Your task to perform on an android device: turn off javascript in the chrome app Image 0: 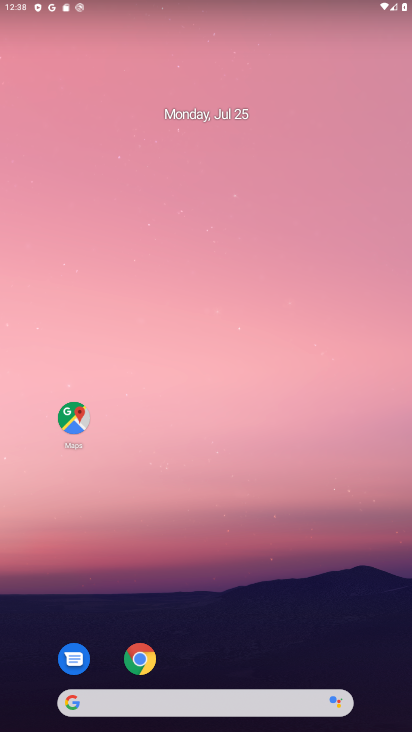
Step 0: click (408, 563)
Your task to perform on an android device: turn off javascript in the chrome app Image 1: 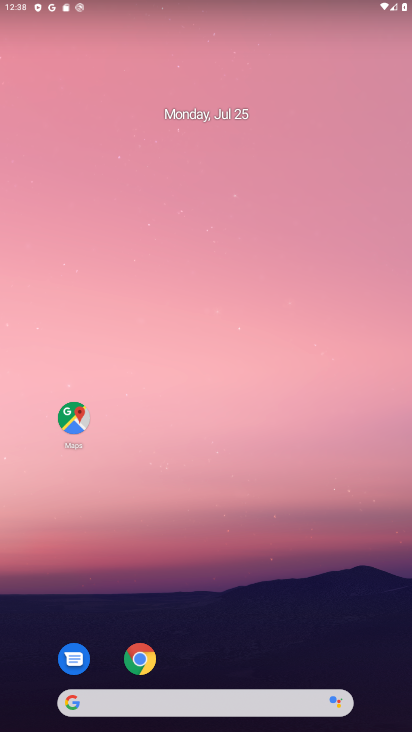
Step 1: drag from (336, 639) to (313, 167)
Your task to perform on an android device: turn off javascript in the chrome app Image 2: 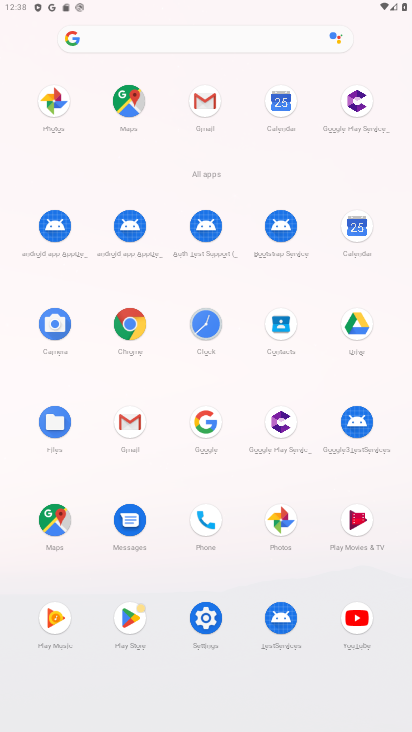
Step 2: click (124, 327)
Your task to perform on an android device: turn off javascript in the chrome app Image 3: 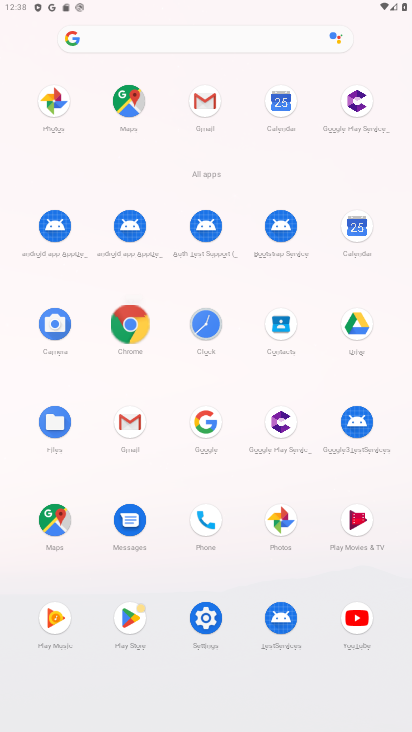
Step 3: click (124, 327)
Your task to perform on an android device: turn off javascript in the chrome app Image 4: 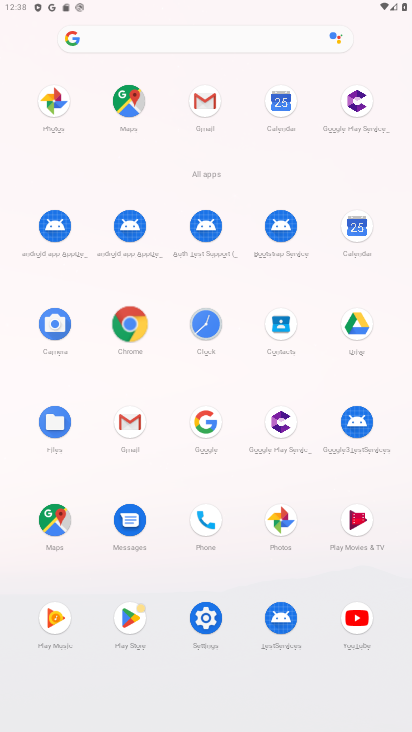
Step 4: click (127, 329)
Your task to perform on an android device: turn off javascript in the chrome app Image 5: 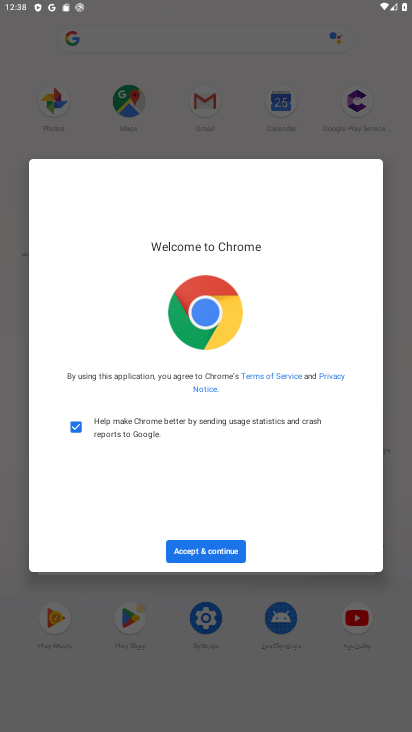
Step 5: click (208, 554)
Your task to perform on an android device: turn off javascript in the chrome app Image 6: 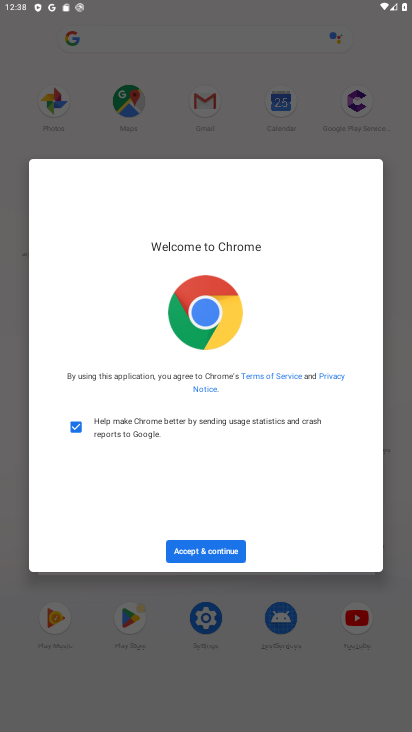
Step 6: click (208, 554)
Your task to perform on an android device: turn off javascript in the chrome app Image 7: 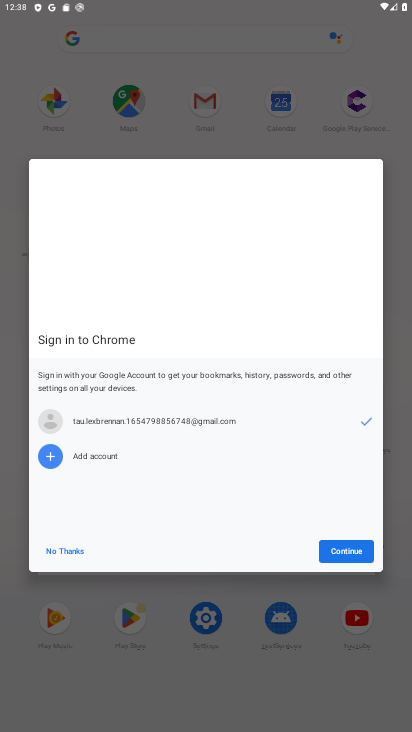
Step 7: click (208, 554)
Your task to perform on an android device: turn off javascript in the chrome app Image 8: 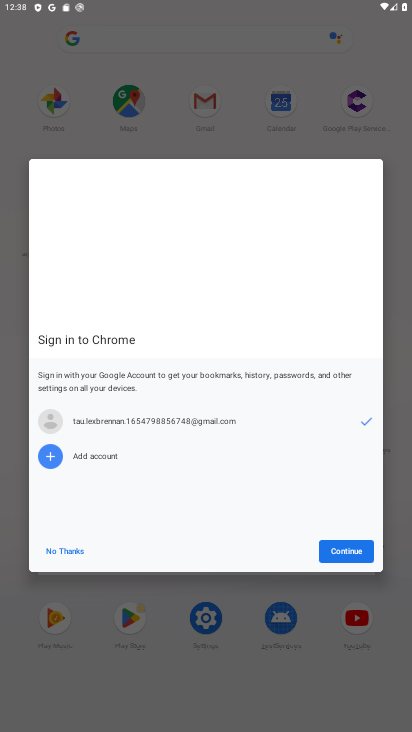
Step 8: click (50, 546)
Your task to perform on an android device: turn off javascript in the chrome app Image 9: 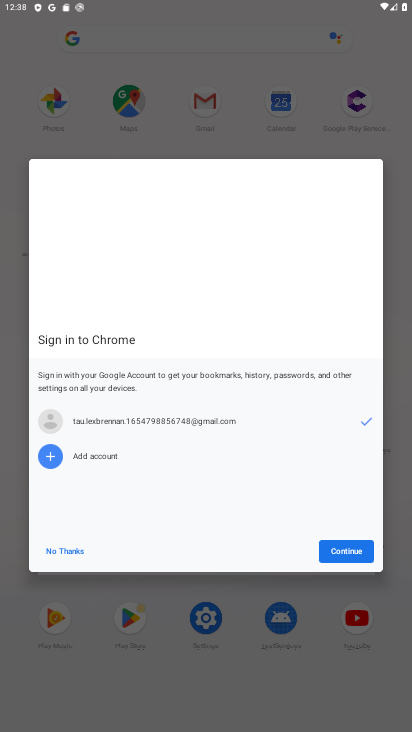
Step 9: click (48, 545)
Your task to perform on an android device: turn off javascript in the chrome app Image 10: 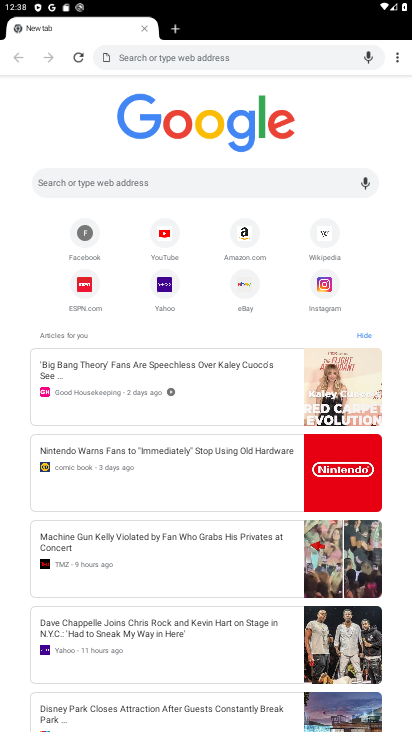
Step 10: click (395, 58)
Your task to perform on an android device: turn off javascript in the chrome app Image 11: 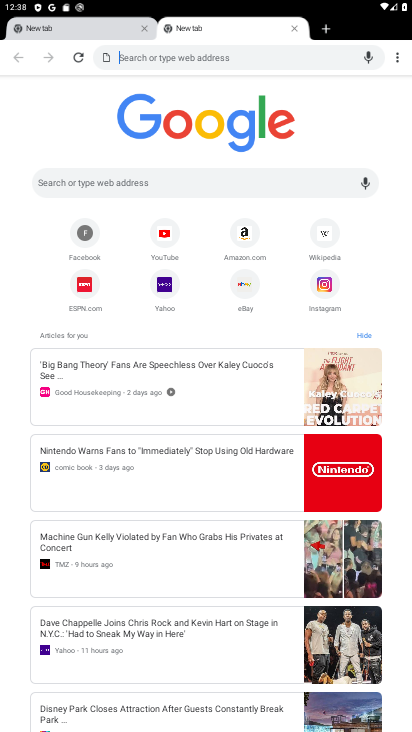
Step 11: drag from (394, 55) to (274, 270)
Your task to perform on an android device: turn off javascript in the chrome app Image 12: 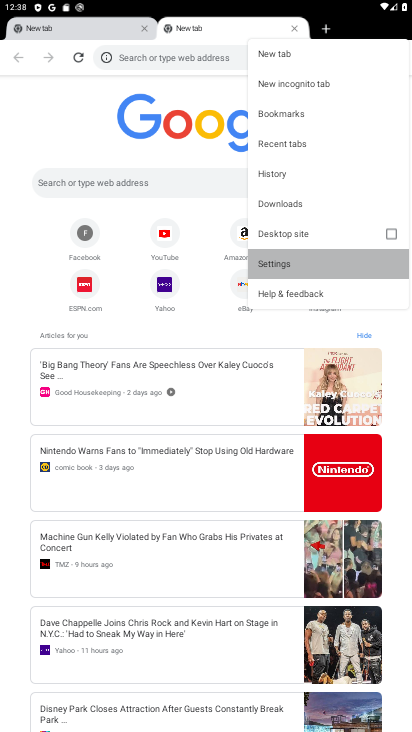
Step 12: click (276, 270)
Your task to perform on an android device: turn off javascript in the chrome app Image 13: 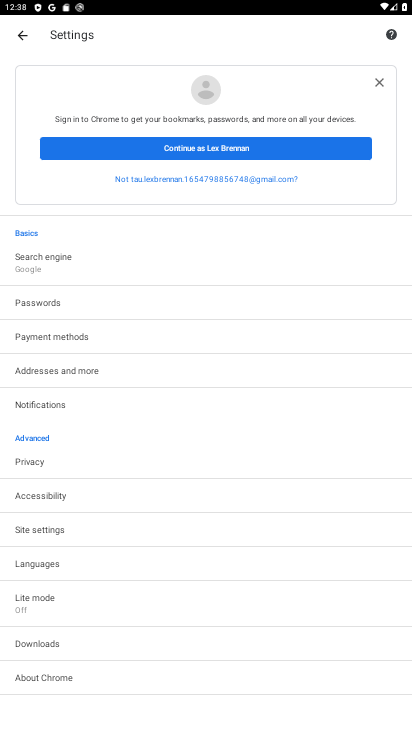
Step 13: click (43, 534)
Your task to perform on an android device: turn off javascript in the chrome app Image 14: 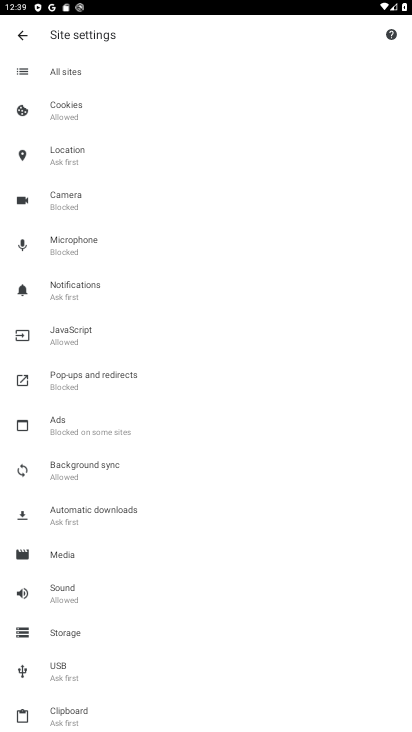
Step 14: click (60, 327)
Your task to perform on an android device: turn off javascript in the chrome app Image 15: 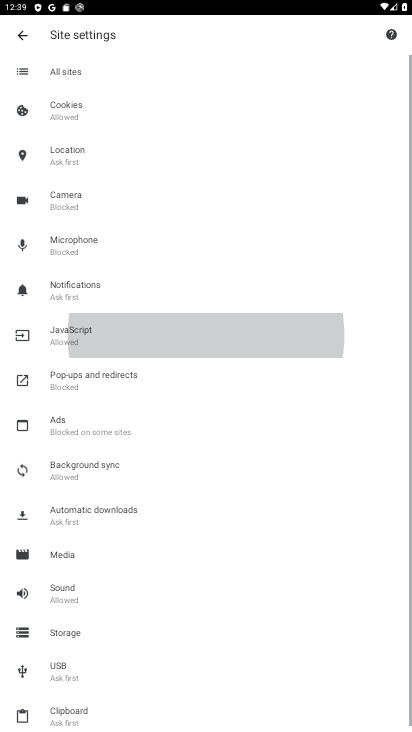
Step 15: click (60, 327)
Your task to perform on an android device: turn off javascript in the chrome app Image 16: 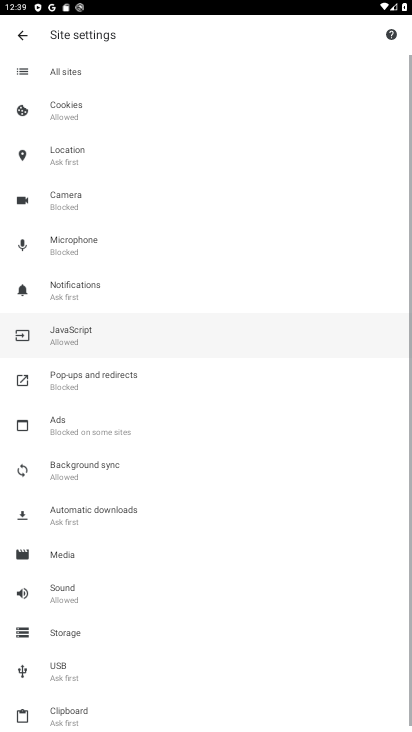
Step 16: click (61, 328)
Your task to perform on an android device: turn off javascript in the chrome app Image 17: 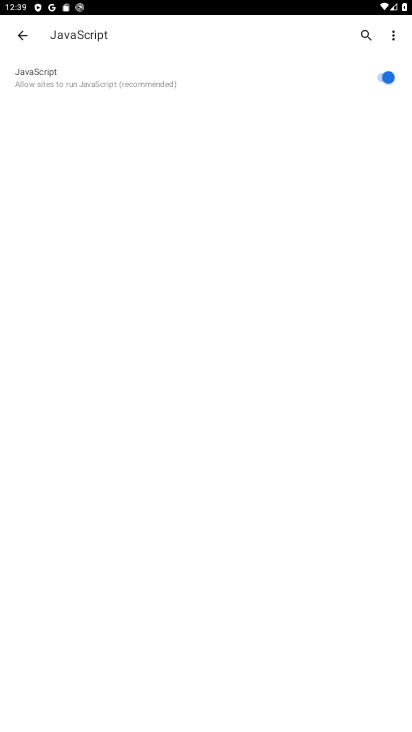
Step 17: click (389, 73)
Your task to perform on an android device: turn off javascript in the chrome app Image 18: 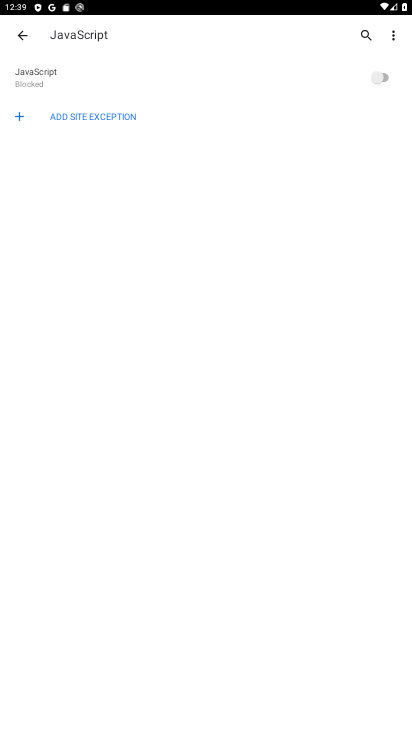
Step 18: task complete